Your task to perform on an android device: Go to Android settings Image 0: 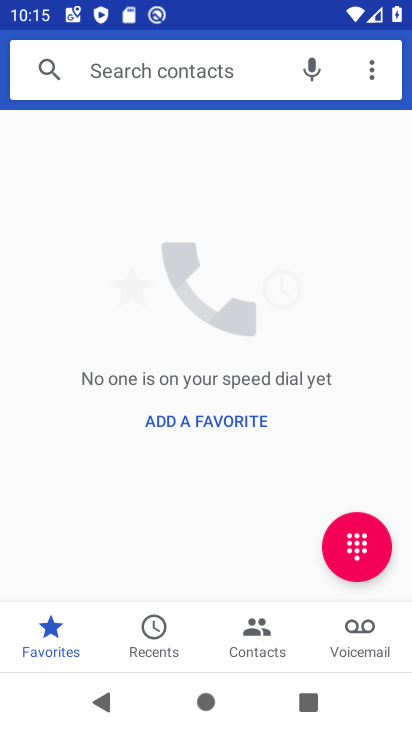
Step 0: press back button
Your task to perform on an android device: Go to Android settings Image 1: 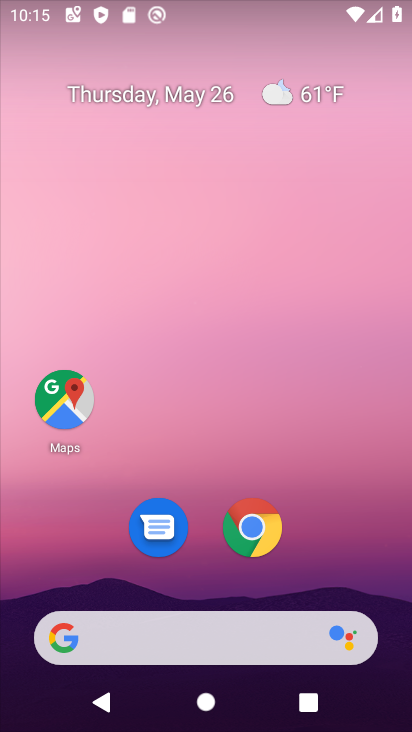
Step 1: drag from (174, 599) to (174, 194)
Your task to perform on an android device: Go to Android settings Image 2: 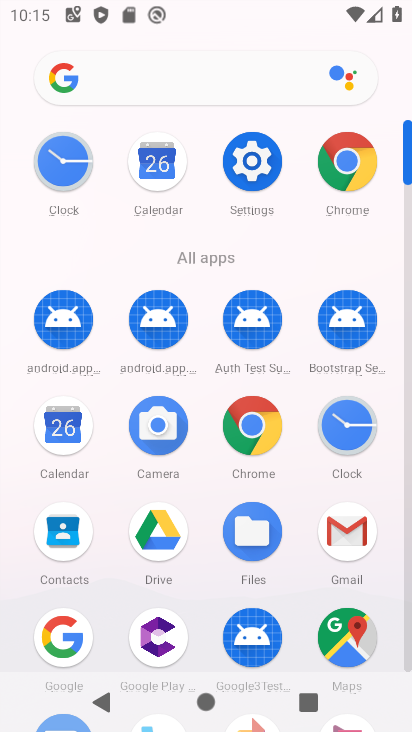
Step 2: click (252, 171)
Your task to perform on an android device: Go to Android settings Image 3: 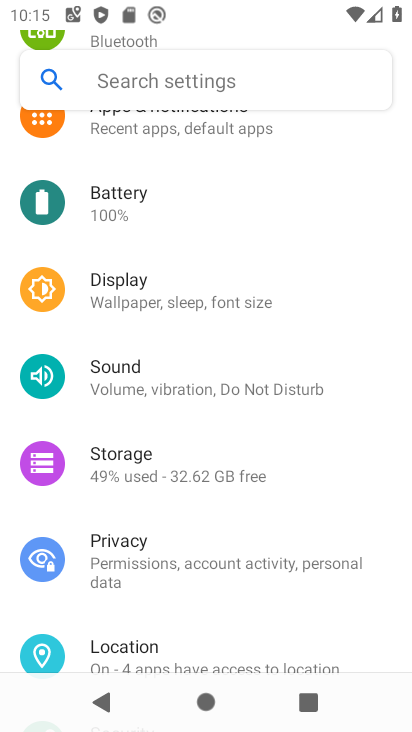
Step 3: drag from (176, 598) to (293, 53)
Your task to perform on an android device: Go to Android settings Image 4: 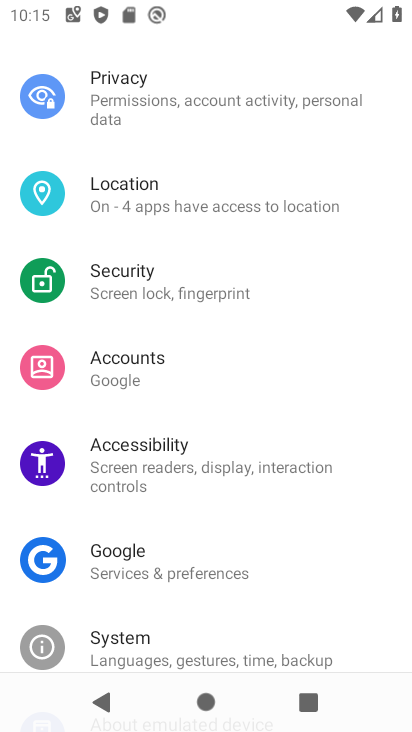
Step 4: drag from (193, 648) to (242, 125)
Your task to perform on an android device: Go to Android settings Image 5: 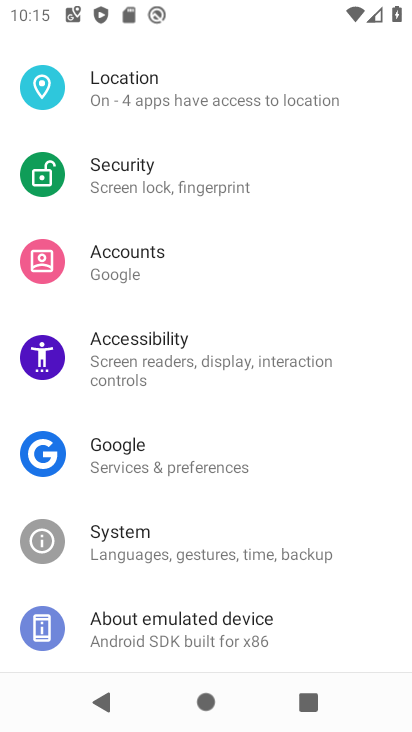
Step 5: click (195, 625)
Your task to perform on an android device: Go to Android settings Image 6: 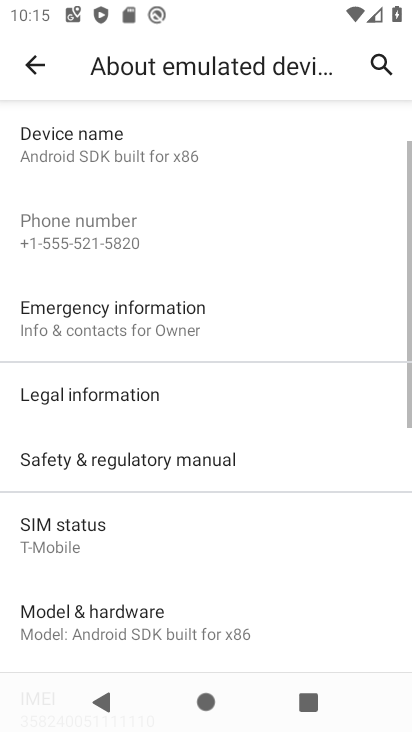
Step 6: task complete